Your task to perform on an android device: allow cookies in the chrome app Image 0: 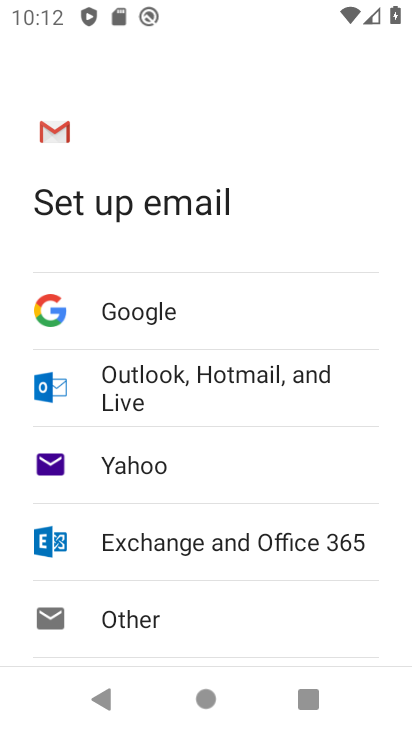
Step 0: press home button
Your task to perform on an android device: allow cookies in the chrome app Image 1: 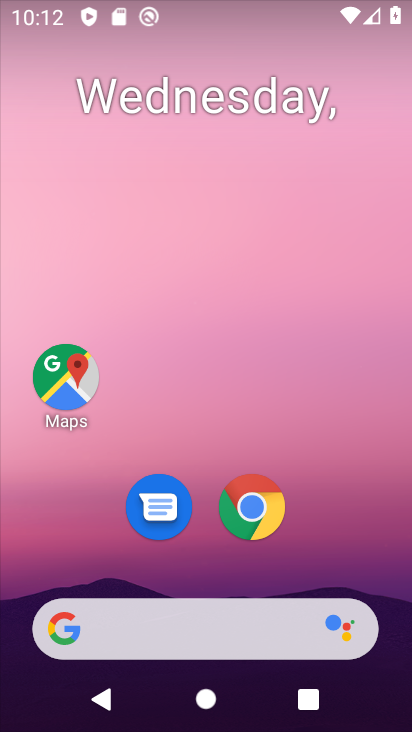
Step 1: drag from (263, 669) to (240, 88)
Your task to perform on an android device: allow cookies in the chrome app Image 2: 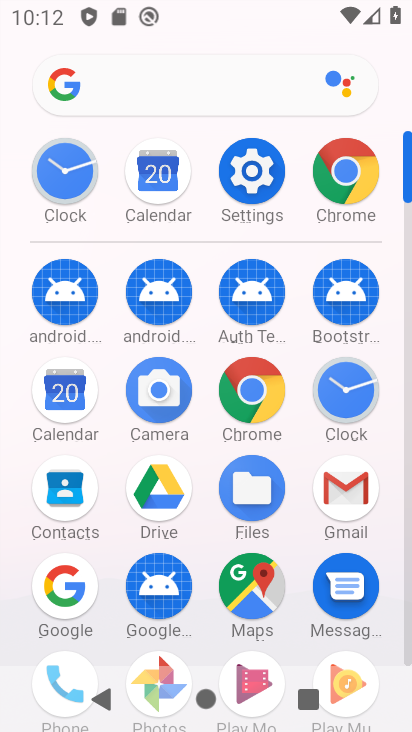
Step 2: click (343, 200)
Your task to perform on an android device: allow cookies in the chrome app Image 3: 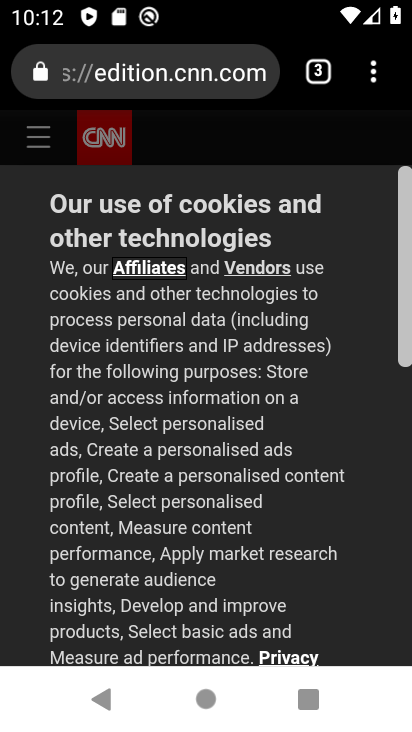
Step 3: click (377, 78)
Your task to perform on an android device: allow cookies in the chrome app Image 4: 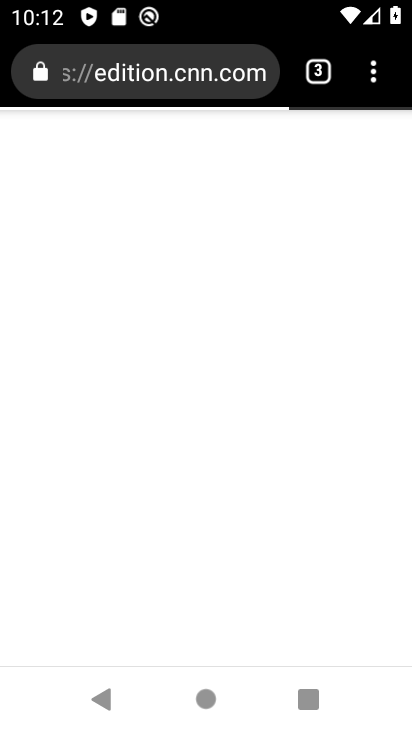
Step 4: click (371, 76)
Your task to perform on an android device: allow cookies in the chrome app Image 5: 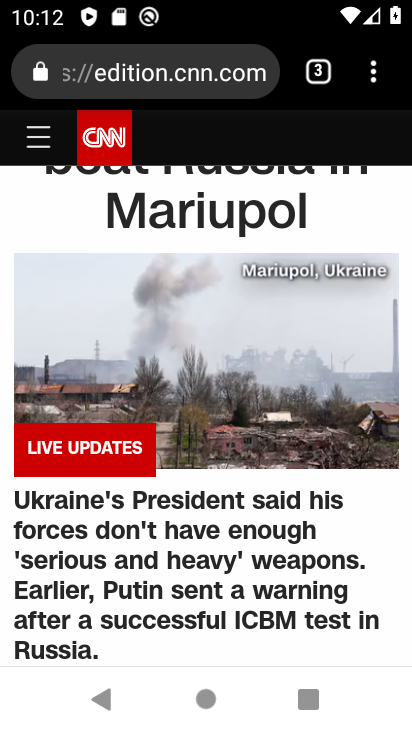
Step 5: click (375, 70)
Your task to perform on an android device: allow cookies in the chrome app Image 6: 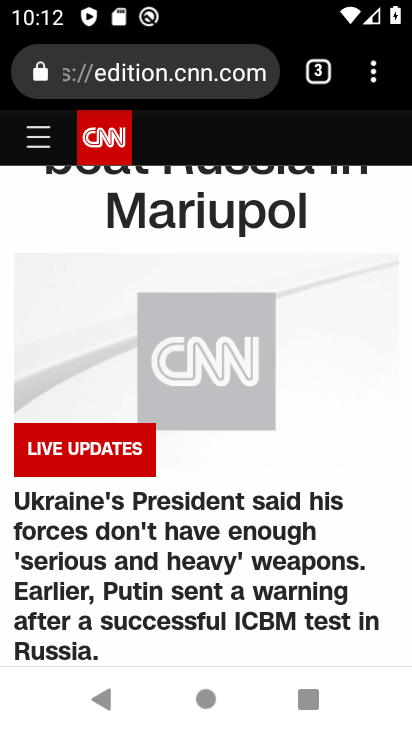
Step 6: click (372, 90)
Your task to perform on an android device: allow cookies in the chrome app Image 7: 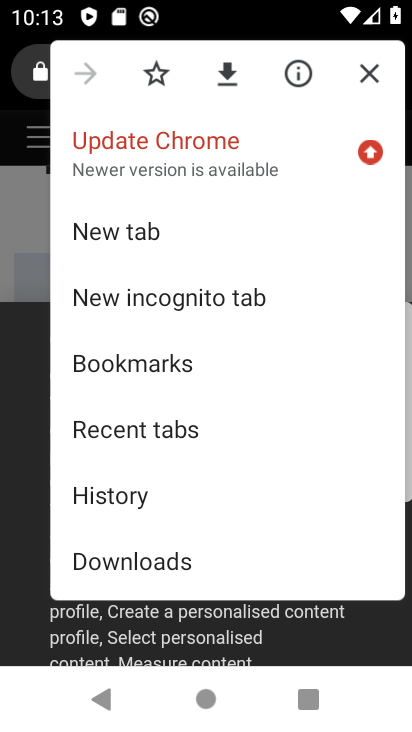
Step 7: drag from (172, 458) to (228, 216)
Your task to perform on an android device: allow cookies in the chrome app Image 8: 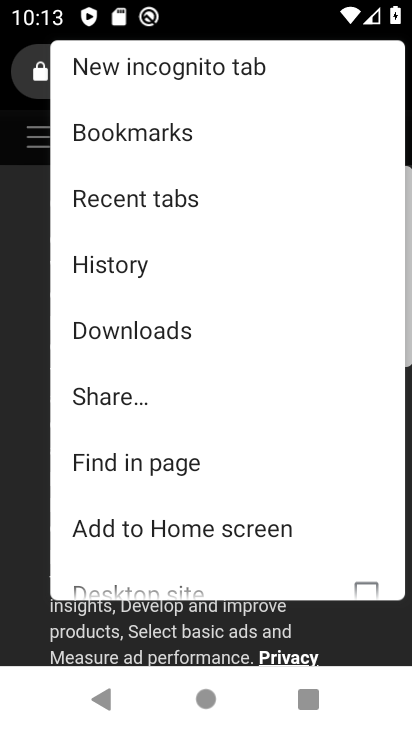
Step 8: drag from (167, 539) to (196, 262)
Your task to perform on an android device: allow cookies in the chrome app Image 9: 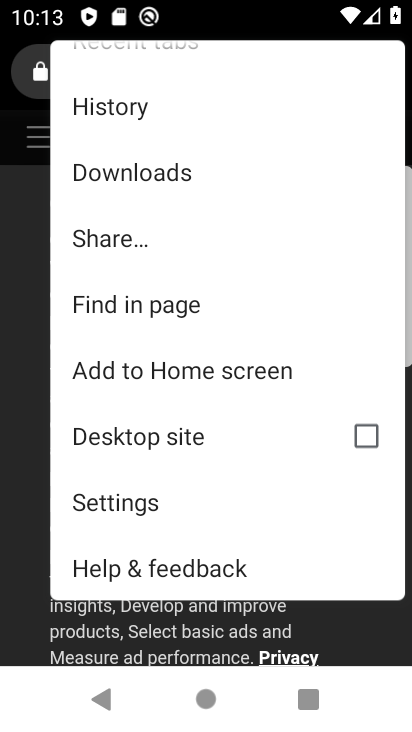
Step 9: click (140, 497)
Your task to perform on an android device: allow cookies in the chrome app Image 10: 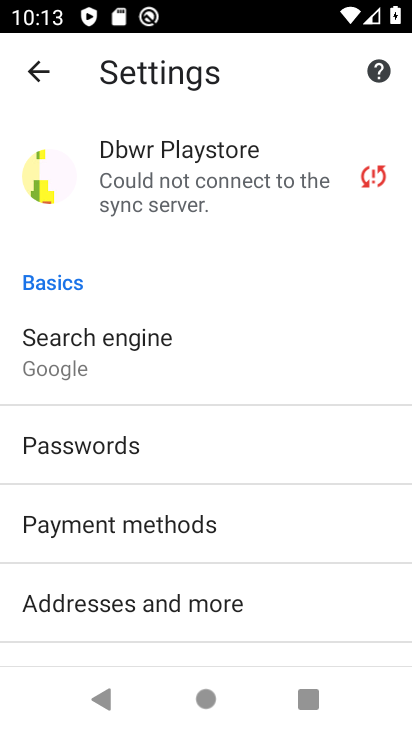
Step 10: drag from (160, 535) to (231, 134)
Your task to perform on an android device: allow cookies in the chrome app Image 11: 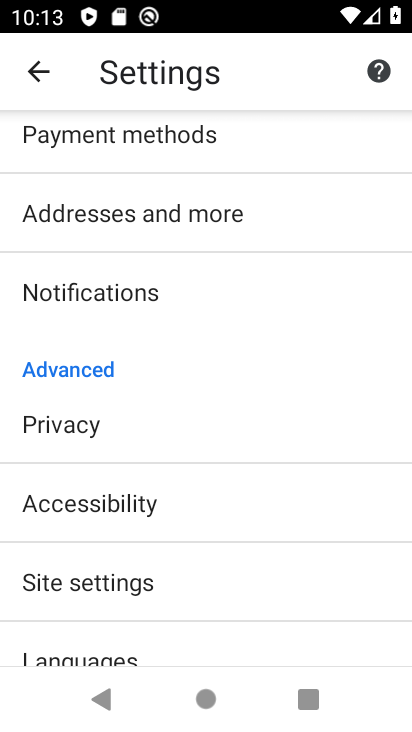
Step 11: click (114, 580)
Your task to perform on an android device: allow cookies in the chrome app Image 12: 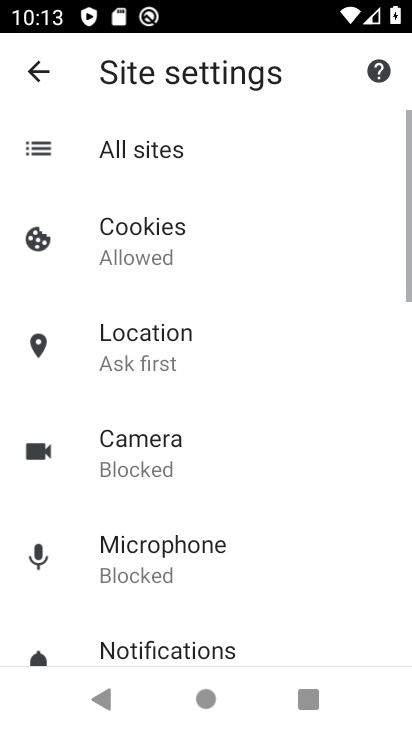
Step 12: drag from (174, 533) to (213, 409)
Your task to perform on an android device: allow cookies in the chrome app Image 13: 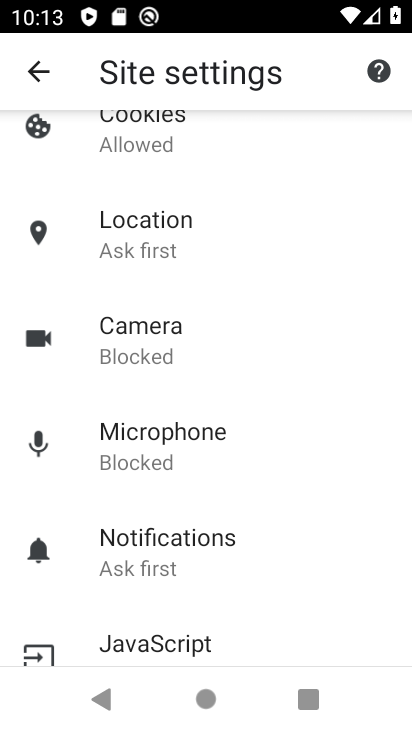
Step 13: click (133, 123)
Your task to perform on an android device: allow cookies in the chrome app Image 14: 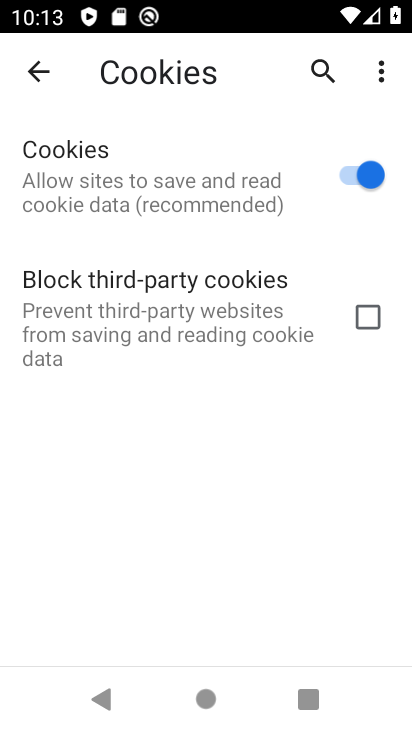
Step 14: click (136, 161)
Your task to perform on an android device: allow cookies in the chrome app Image 15: 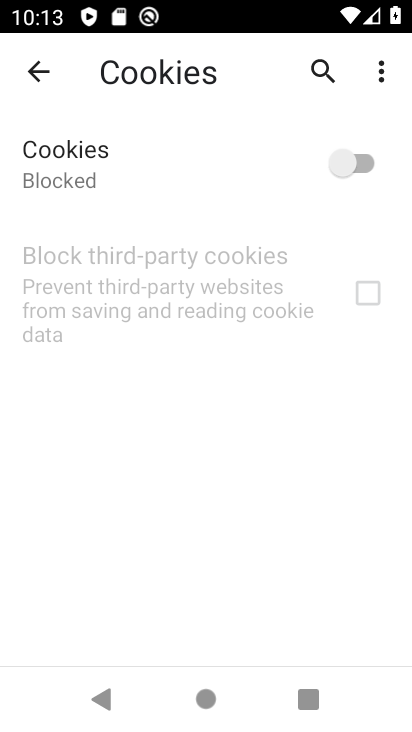
Step 15: click (164, 173)
Your task to perform on an android device: allow cookies in the chrome app Image 16: 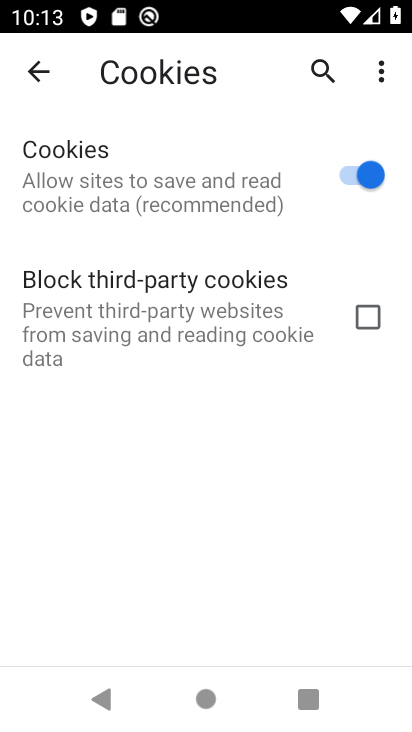
Step 16: task complete